Your task to perform on an android device: turn on priority inbox in the gmail app Image 0: 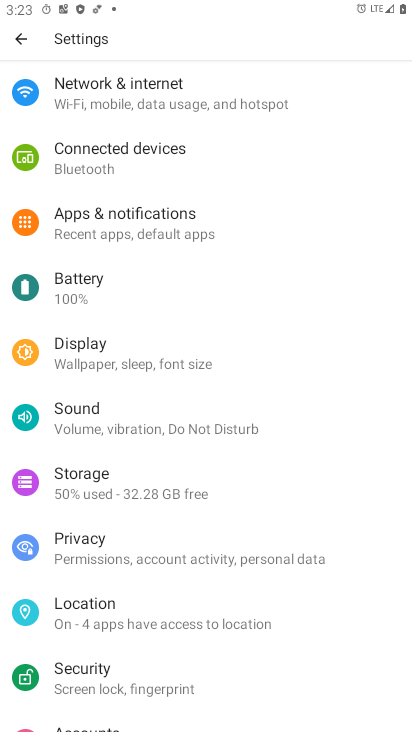
Step 0: press home button
Your task to perform on an android device: turn on priority inbox in the gmail app Image 1: 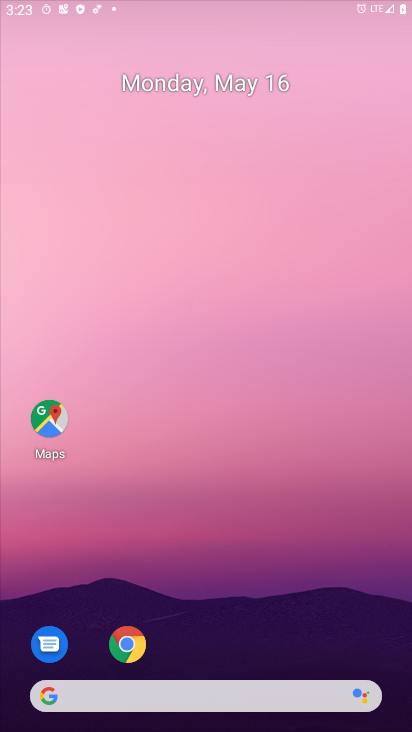
Step 1: drag from (172, 589) to (212, 208)
Your task to perform on an android device: turn on priority inbox in the gmail app Image 2: 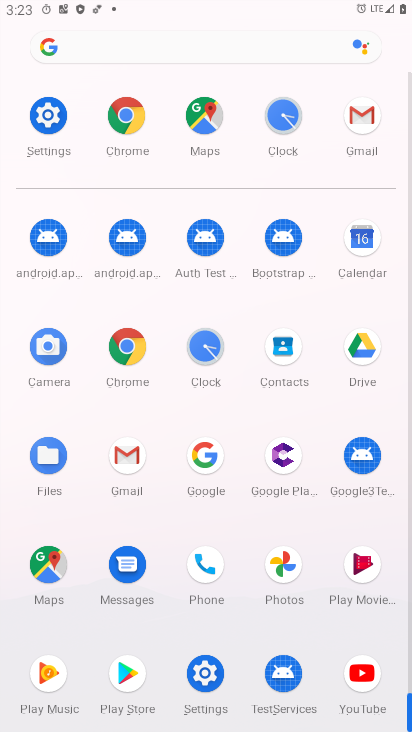
Step 2: click (132, 465)
Your task to perform on an android device: turn on priority inbox in the gmail app Image 3: 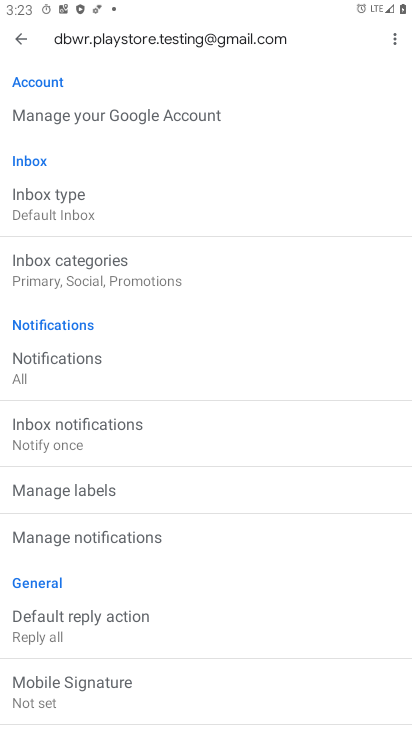
Step 3: drag from (238, 541) to (263, 351)
Your task to perform on an android device: turn on priority inbox in the gmail app Image 4: 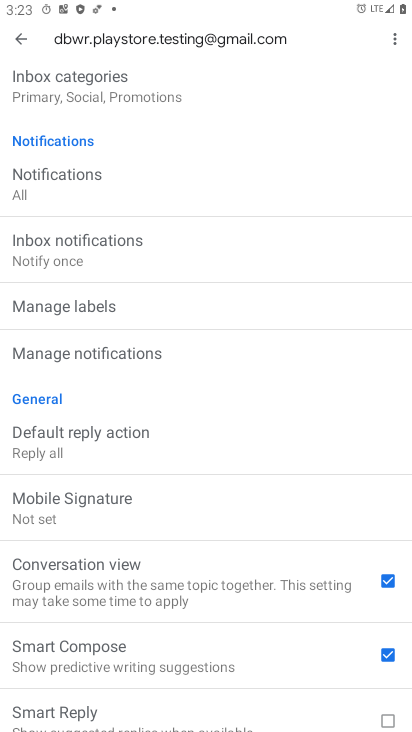
Step 4: drag from (211, 552) to (286, 318)
Your task to perform on an android device: turn on priority inbox in the gmail app Image 5: 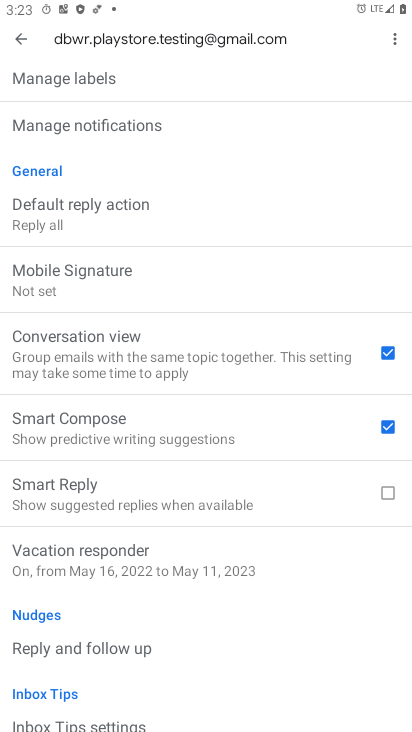
Step 5: drag from (222, 220) to (163, 692)
Your task to perform on an android device: turn on priority inbox in the gmail app Image 6: 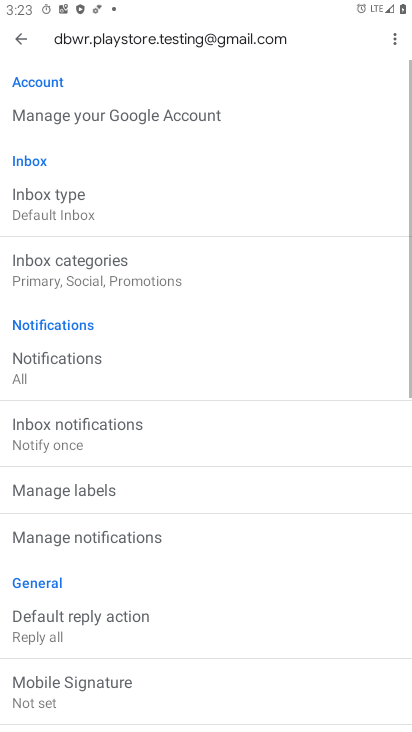
Step 6: drag from (219, 335) to (186, 612)
Your task to perform on an android device: turn on priority inbox in the gmail app Image 7: 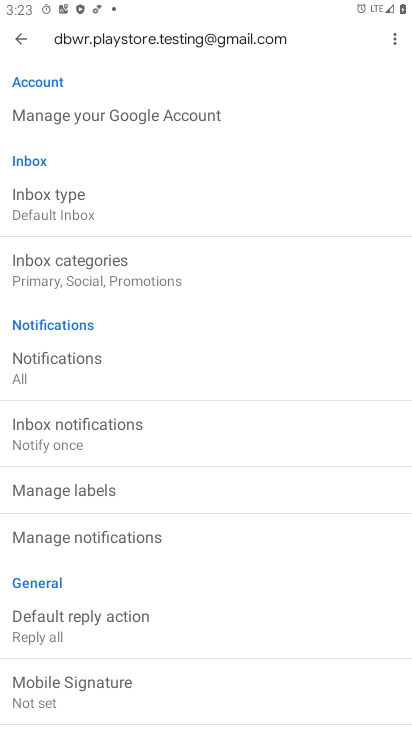
Step 7: click (90, 200)
Your task to perform on an android device: turn on priority inbox in the gmail app Image 8: 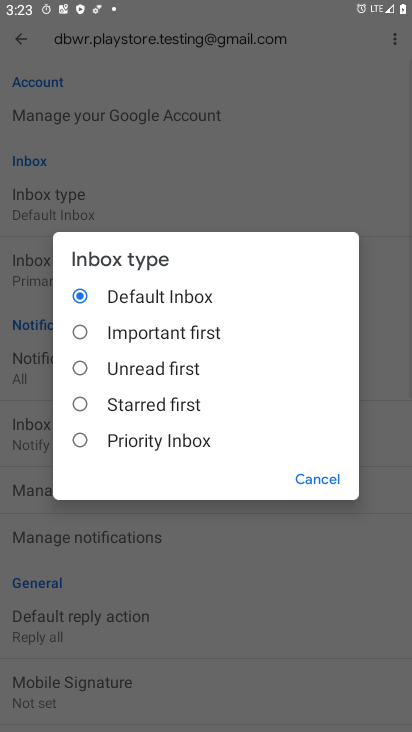
Step 8: click (144, 437)
Your task to perform on an android device: turn on priority inbox in the gmail app Image 9: 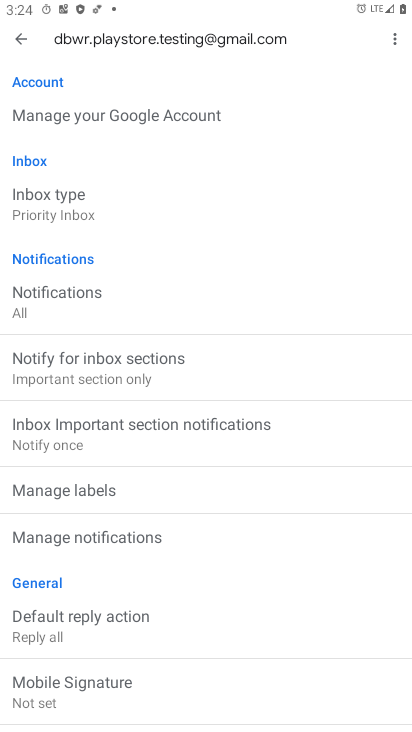
Step 9: task complete